Your task to perform on an android device: see creations saved in the google photos Image 0: 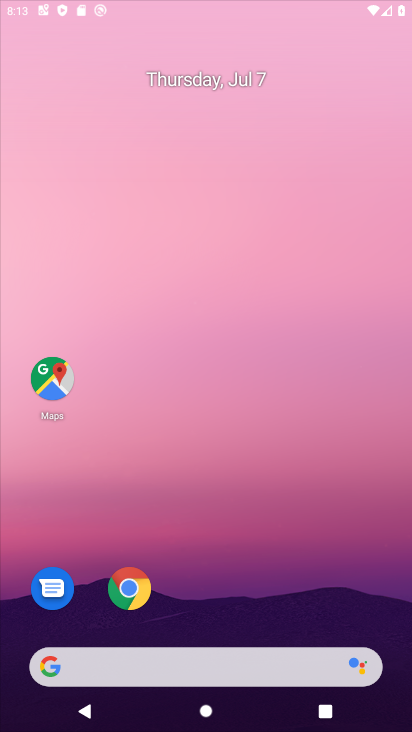
Step 0: click (295, 142)
Your task to perform on an android device: see creations saved in the google photos Image 1: 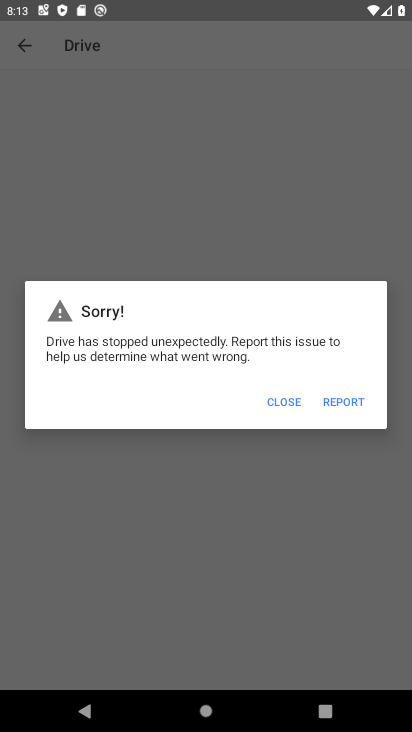
Step 1: press home button
Your task to perform on an android device: see creations saved in the google photos Image 2: 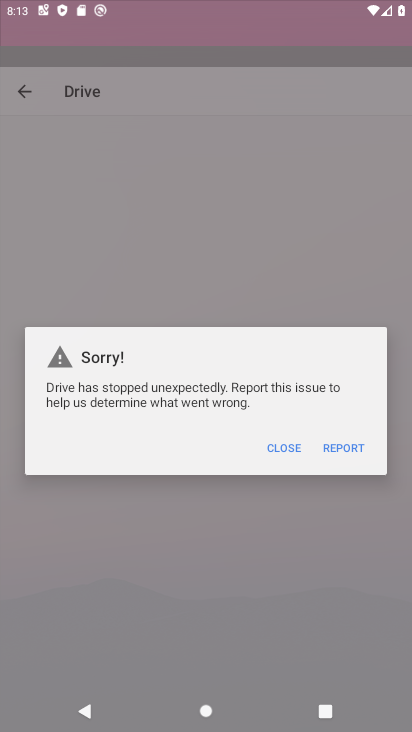
Step 2: drag from (220, 639) to (251, 64)
Your task to perform on an android device: see creations saved in the google photos Image 3: 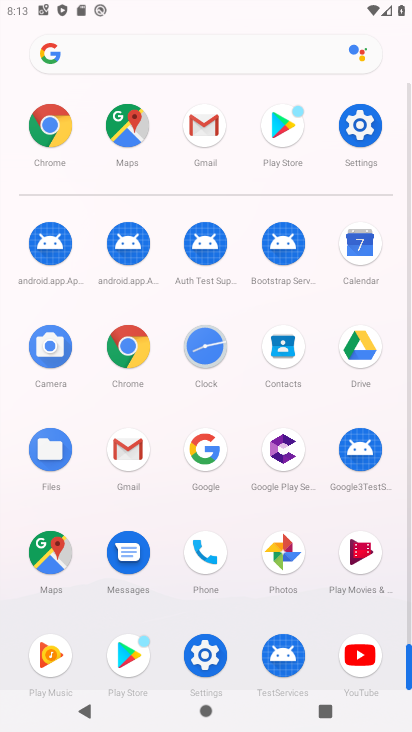
Step 3: click (283, 555)
Your task to perform on an android device: see creations saved in the google photos Image 4: 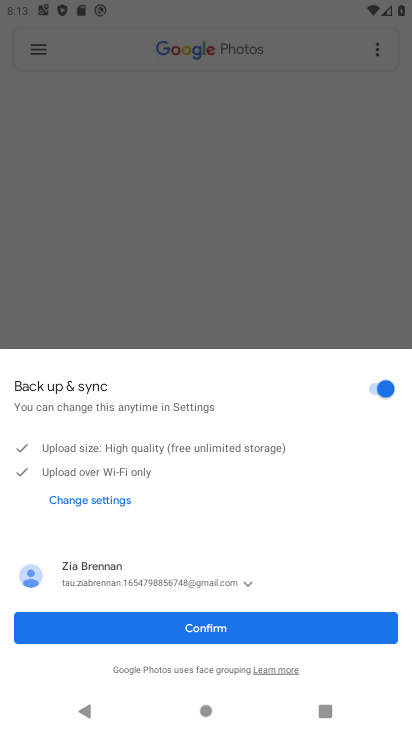
Step 4: click (200, 623)
Your task to perform on an android device: see creations saved in the google photos Image 5: 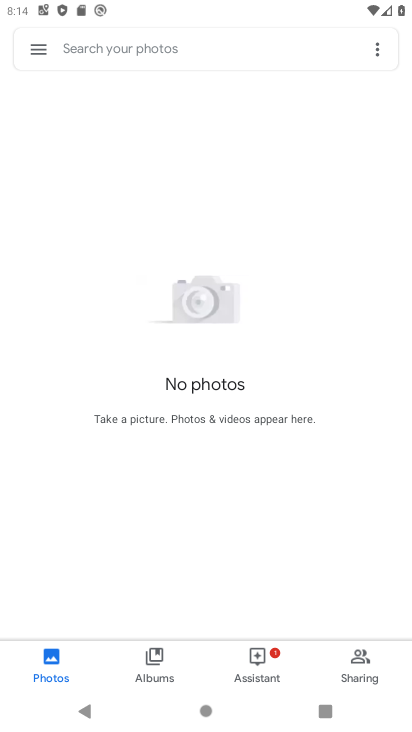
Step 5: drag from (190, 562) to (194, 367)
Your task to perform on an android device: see creations saved in the google photos Image 6: 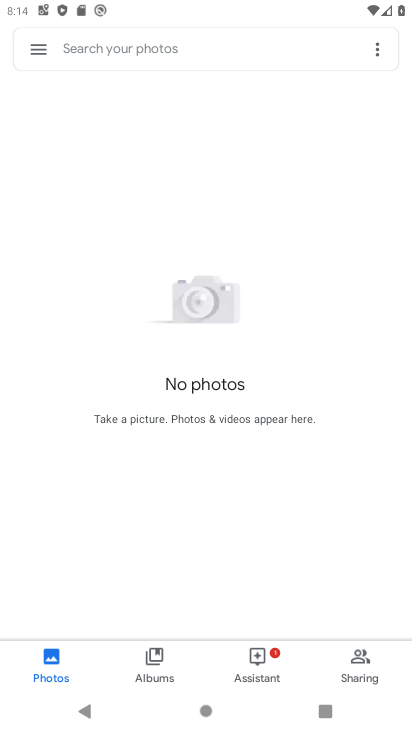
Step 6: click (104, 28)
Your task to perform on an android device: see creations saved in the google photos Image 7: 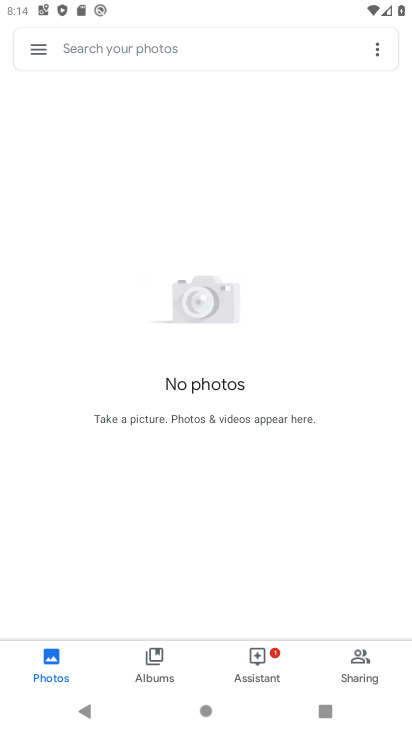
Step 7: click (149, 44)
Your task to perform on an android device: see creations saved in the google photos Image 8: 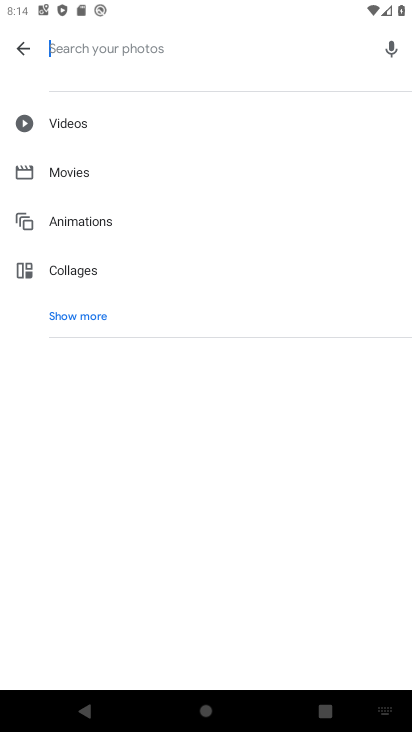
Step 8: click (69, 304)
Your task to perform on an android device: see creations saved in the google photos Image 9: 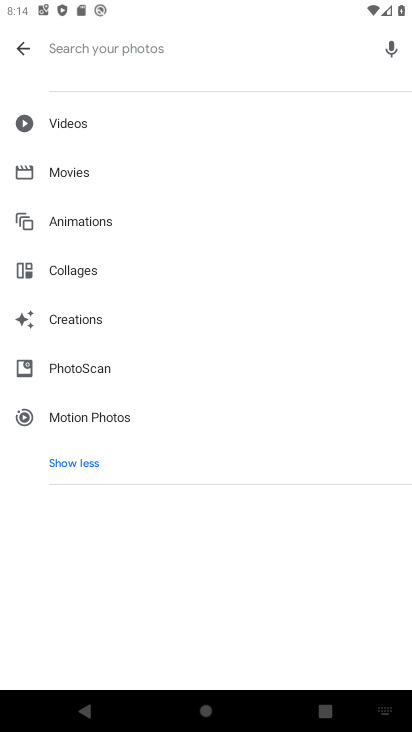
Step 9: click (91, 327)
Your task to perform on an android device: see creations saved in the google photos Image 10: 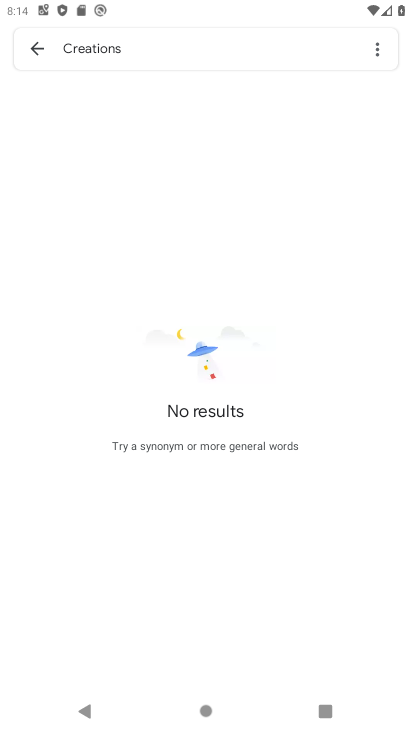
Step 10: task complete